Your task to perform on an android device: turn on bluetooth scan Image 0: 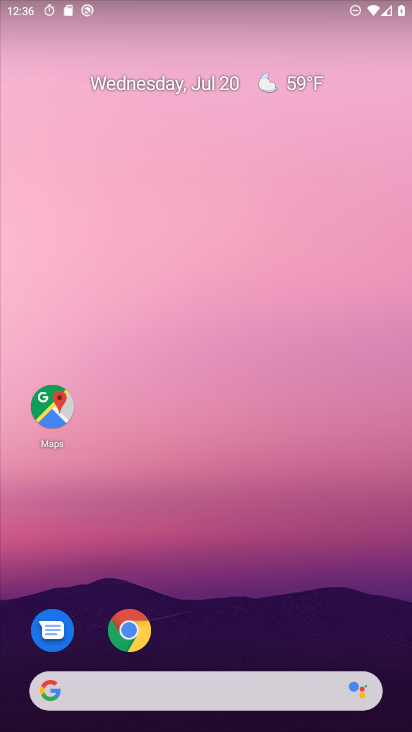
Step 0: drag from (183, 679) to (271, 0)
Your task to perform on an android device: turn on bluetooth scan Image 1: 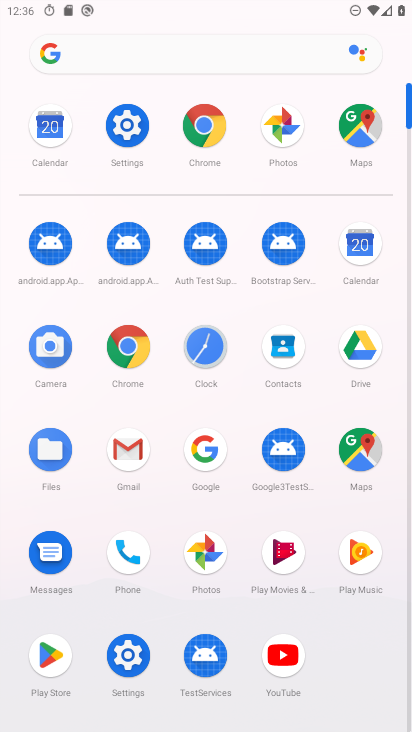
Step 1: click (139, 137)
Your task to perform on an android device: turn on bluetooth scan Image 2: 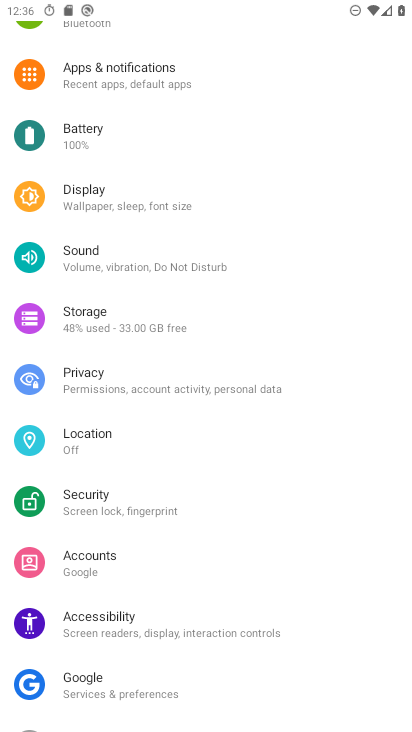
Step 2: click (97, 435)
Your task to perform on an android device: turn on bluetooth scan Image 3: 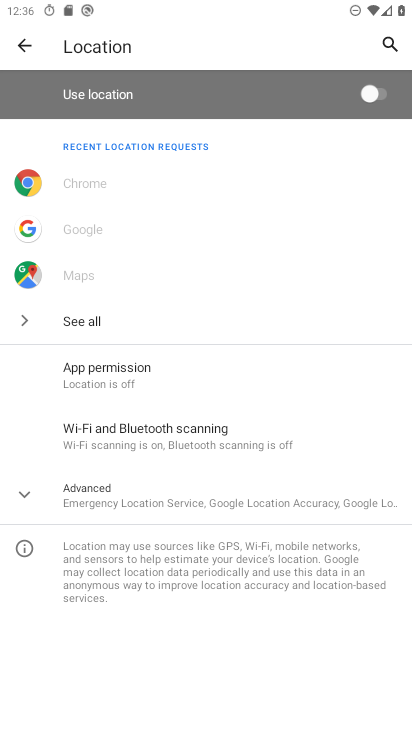
Step 3: click (162, 427)
Your task to perform on an android device: turn on bluetooth scan Image 4: 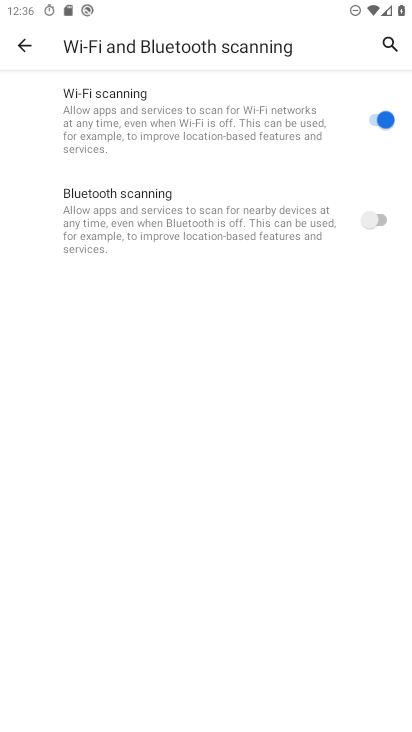
Step 4: click (388, 222)
Your task to perform on an android device: turn on bluetooth scan Image 5: 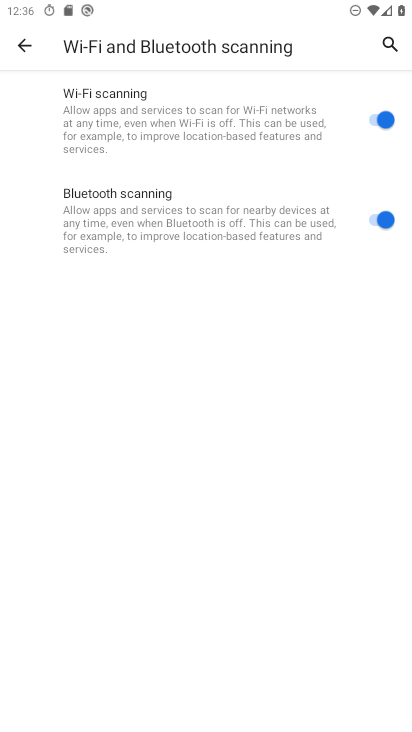
Step 5: task complete